Your task to perform on an android device: find snoozed emails in the gmail app Image 0: 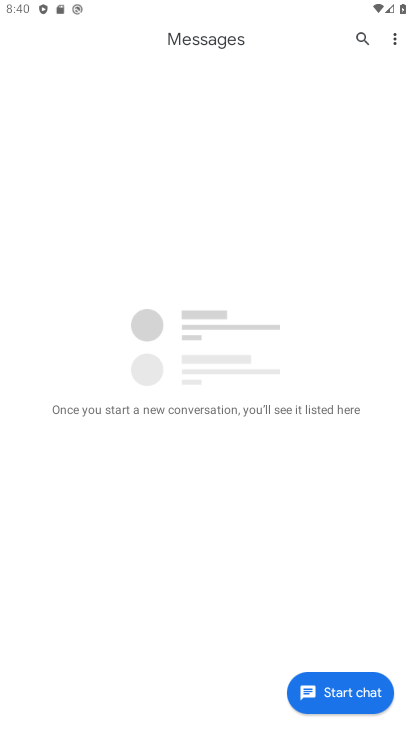
Step 0: press home button
Your task to perform on an android device: find snoozed emails in the gmail app Image 1: 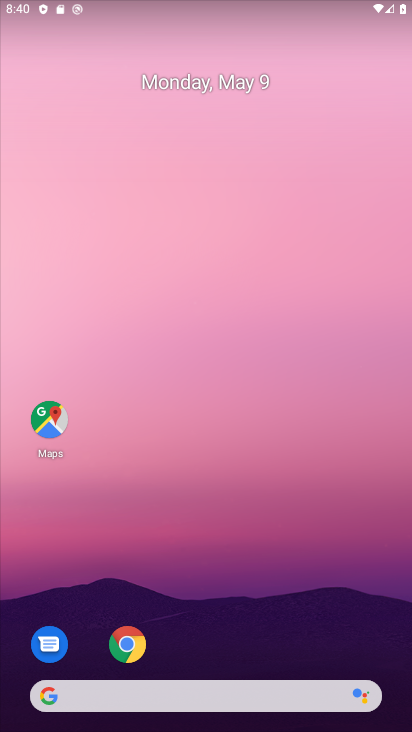
Step 1: drag from (252, 609) to (246, 79)
Your task to perform on an android device: find snoozed emails in the gmail app Image 2: 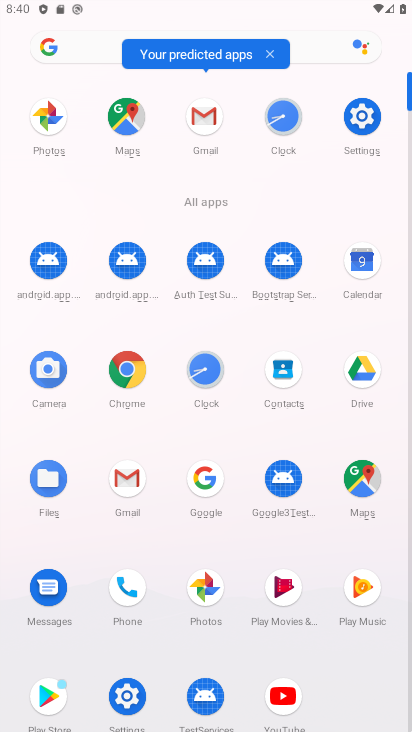
Step 2: click (205, 114)
Your task to perform on an android device: find snoozed emails in the gmail app Image 3: 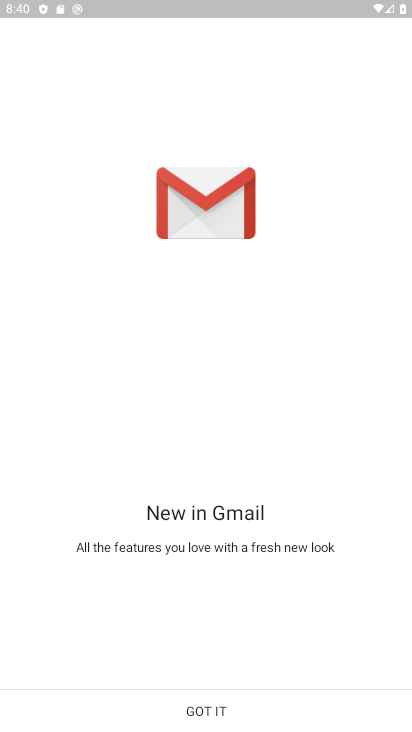
Step 3: click (204, 714)
Your task to perform on an android device: find snoozed emails in the gmail app Image 4: 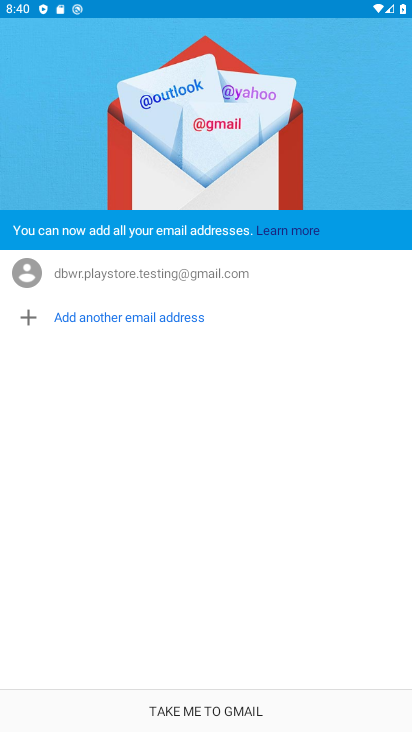
Step 4: click (201, 707)
Your task to perform on an android device: find snoozed emails in the gmail app Image 5: 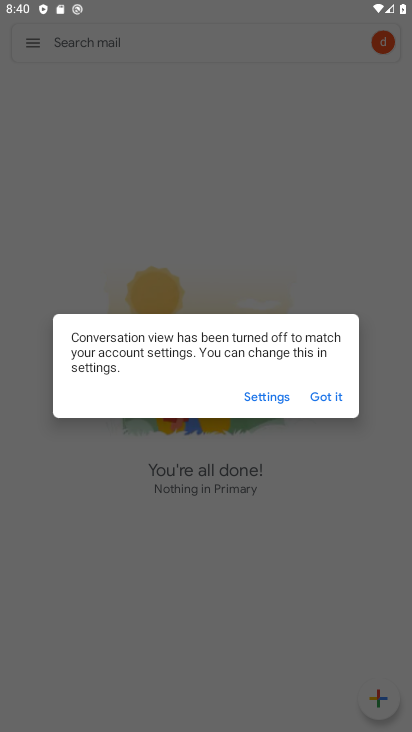
Step 5: click (262, 394)
Your task to perform on an android device: find snoozed emails in the gmail app Image 6: 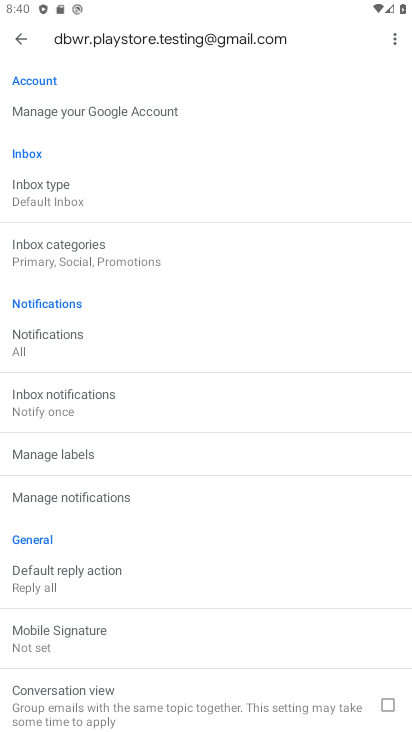
Step 6: click (16, 40)
Your task to perform on an android device: find snoozed emails in the gmail app Image 7: 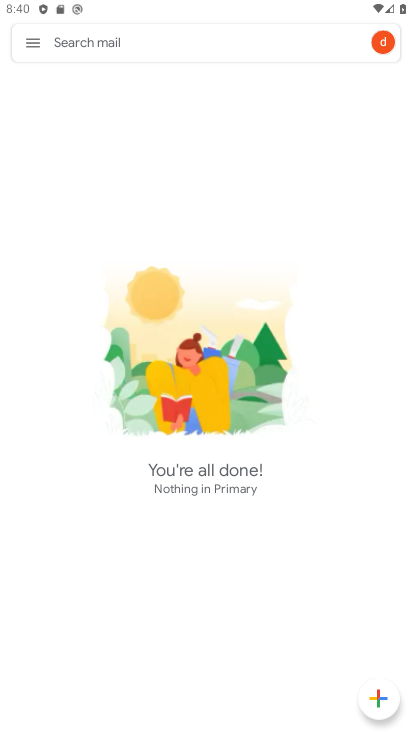
Step 7: click (26, 41)
Your task to perform on an android device: find snoozed emails in the gmail app Image 8: 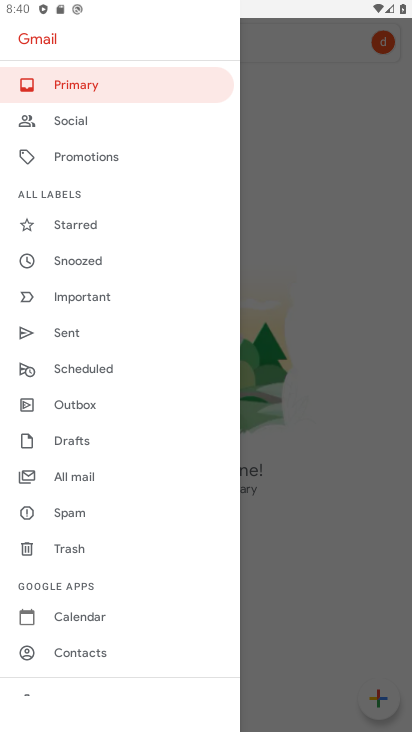
Step 8: click (88, 257)
Your task to perform on an android device: find snoozed emails in the gmail app Image 9: 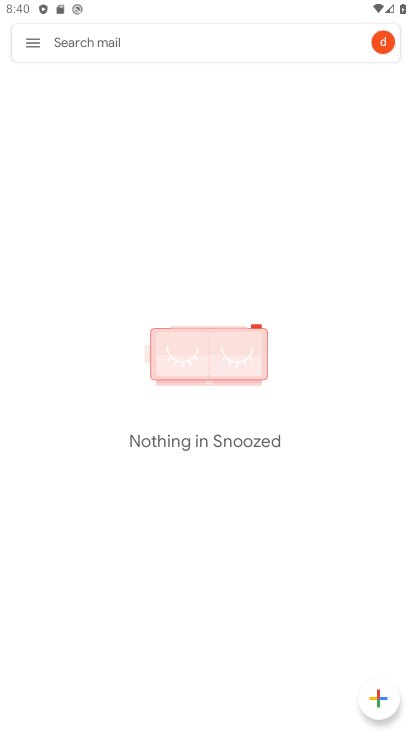
Step 9: task complete